Your task to perform on an android device: turn off priority inbox in the gmail app Image 0: 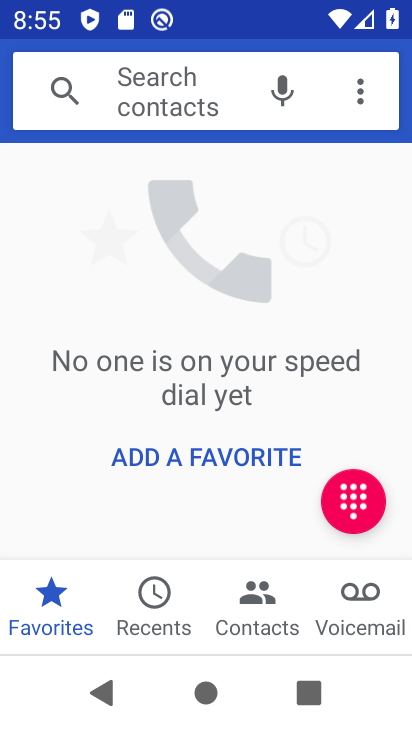
Step 0: press home button
Your task to perform on an android device: turn off priority inbox in the gmail app Image 1: 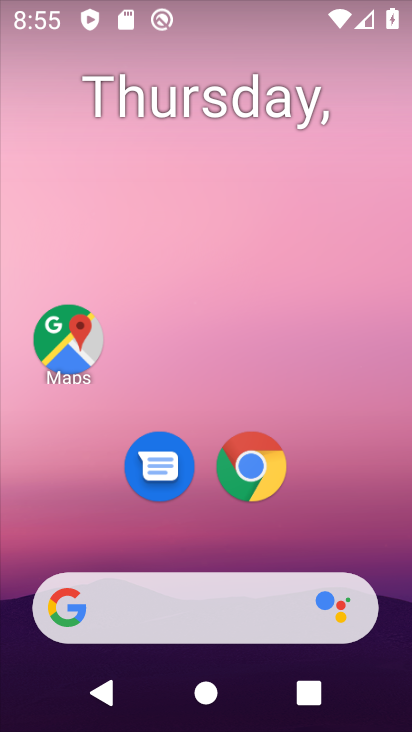
Step 1: click (247, 468)
Your task to perform on an android device: turn off priority inbox in the gmail app Image 2: 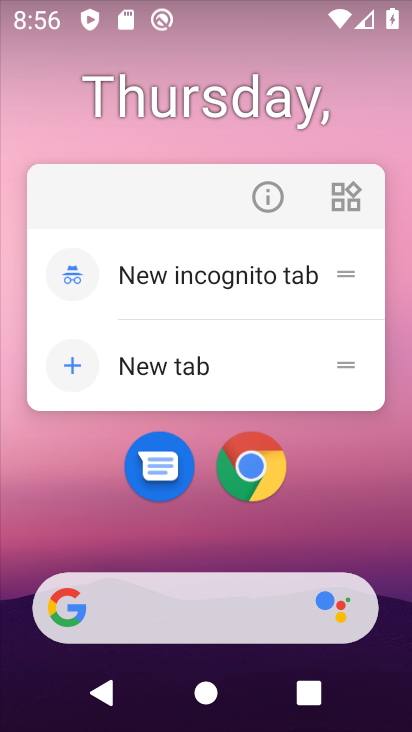
Step 2: drag from (213, 617) to (344, 129)
Your task to perform on an android device: turn off priority inbox in the gmail app Image 3: 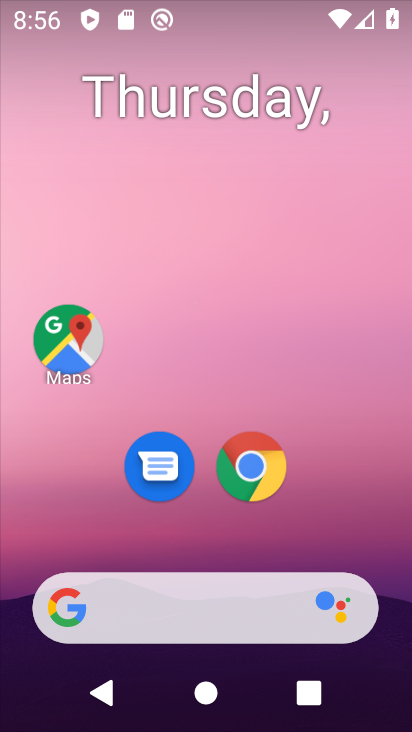
Step 3: drag from (163, 585) to (280, 147)
Your task to perform on an android device: turn off priority inbox in the gmail app Image 4: 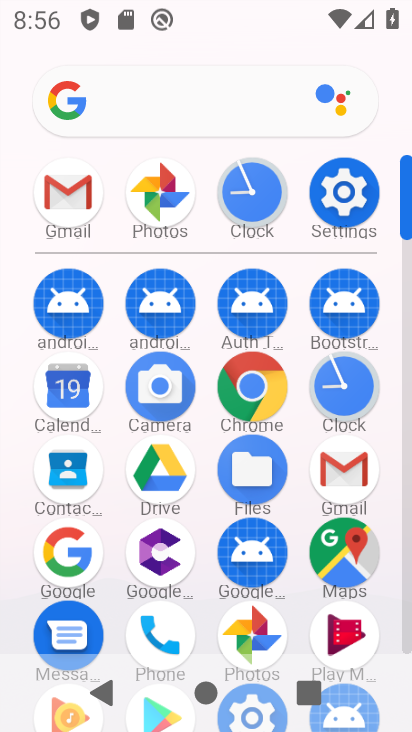
Step 4: click (74, 210)
Your task to perform on an android device: turn off priority inbox in the gmail app Image 5: 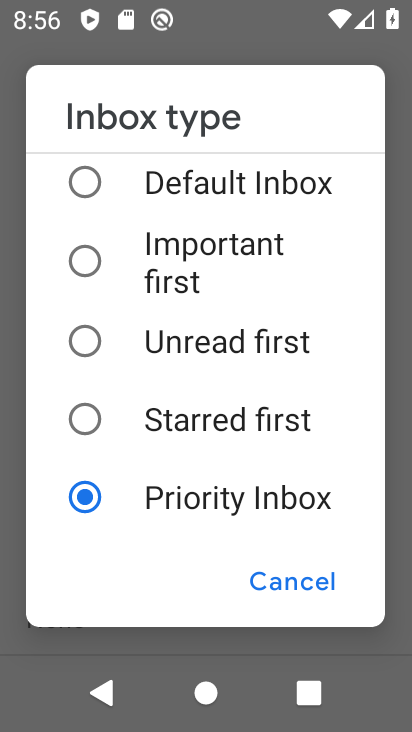
Step 5: click (94, 188)
Your task to perform on an android device: turn off priority inbox in the gmail app Image 6: 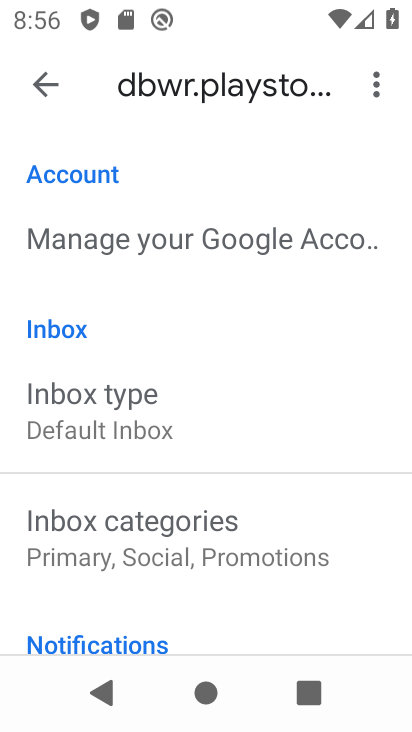
Step 6: task complete